Your task to perform on an android device: Go to battery settings Image 0: 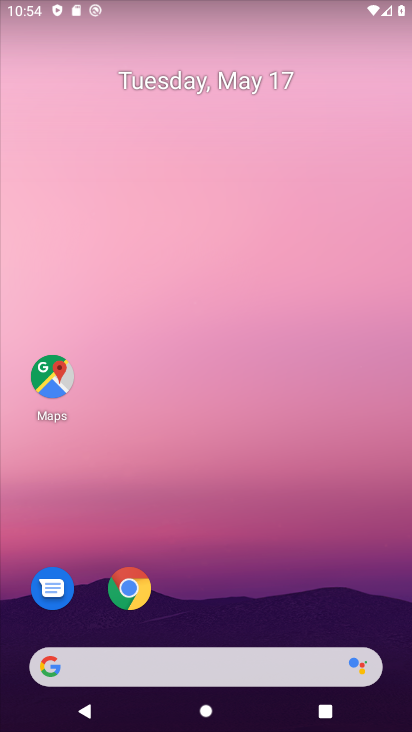
Step 0: drag from (324, 602) to (283, 110)
Your task to perform on an android device: Go to battery settings Image 1: 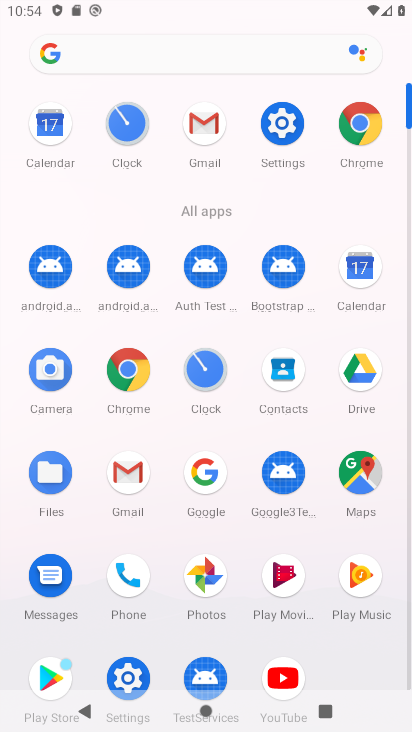
Step 1: click (281, 129)
Your task to perform on an android device: Go to battery settings Image 2: 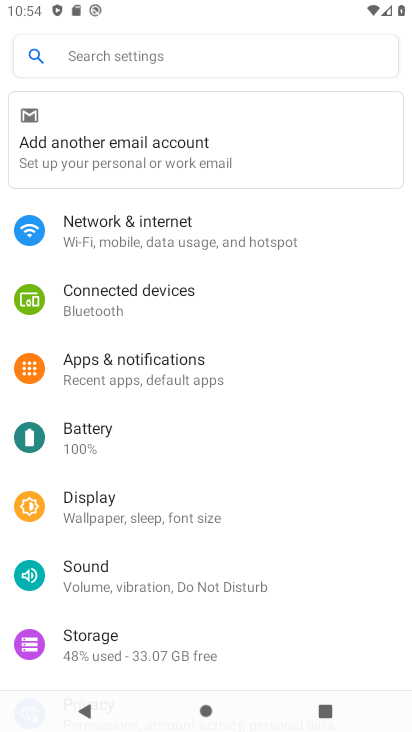
Step 2: click (165, 445)
Your task to perform on an android device: Go to battery settings Image 3: 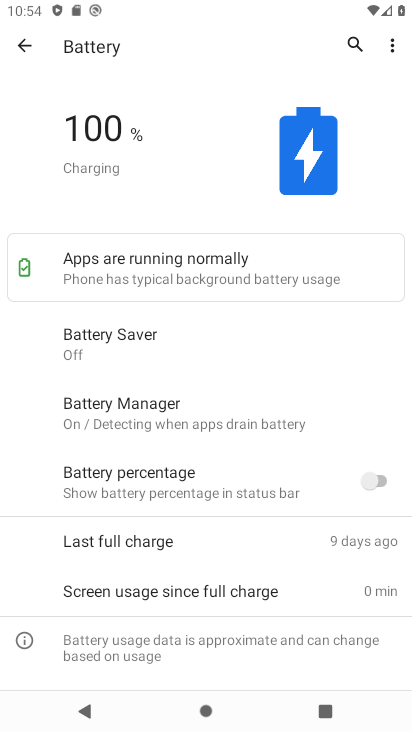
Step 3: task complete